Your task to perform on an android device: open device folders in google photos Image 0: 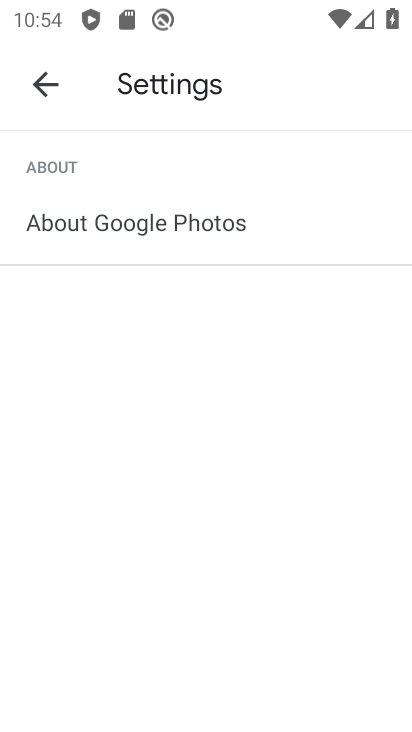
Step 0: press home button
Your task to perform on an android device: open device folders in google photos Image 1: 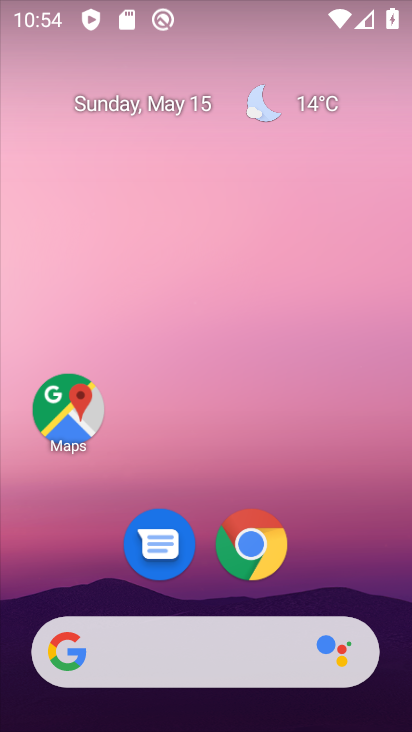
Step 1: drag from (106, 611) to (247, 59)
Your task to perform on an android device: open device folders in google photos Image 2: 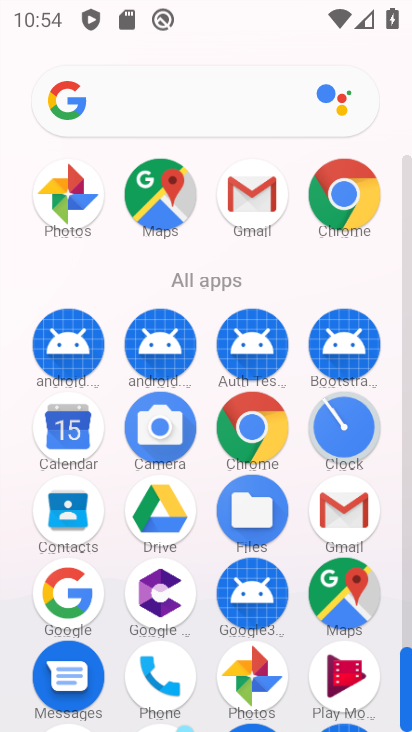
Step 2: drag from (146, 656) to (226, 425)
Your task to perform on an android device: open device folders in google photos Image 3: 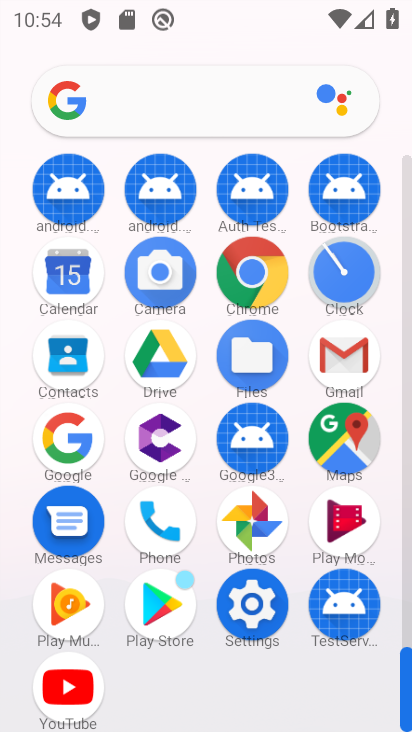
Step 3: click (236, 513)
Your task to perform on an android device: open device folders in google photos Image 4: 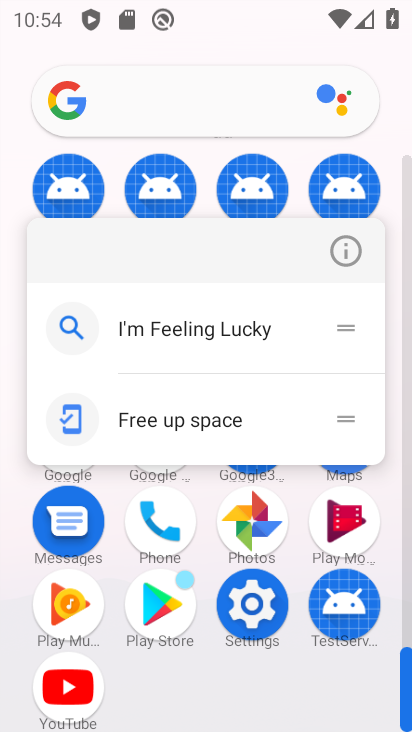
Step 4: click (243, 516)
Your task to perform on an android device: open device folders in google photos Image 5: 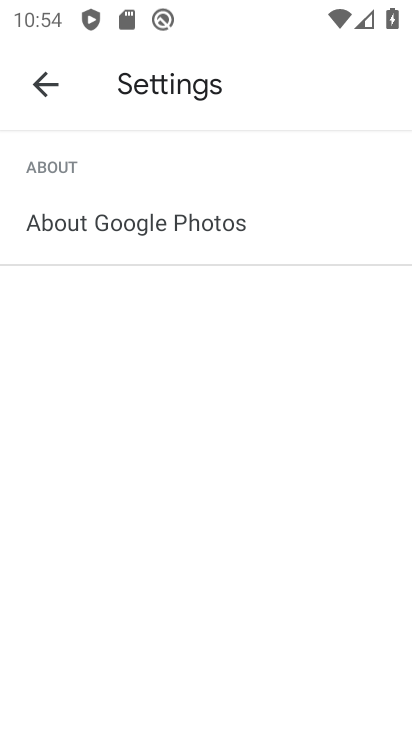
Step 5: click (76, 108)
Your task to perform on an android device: open device folders in google photos Image 6: 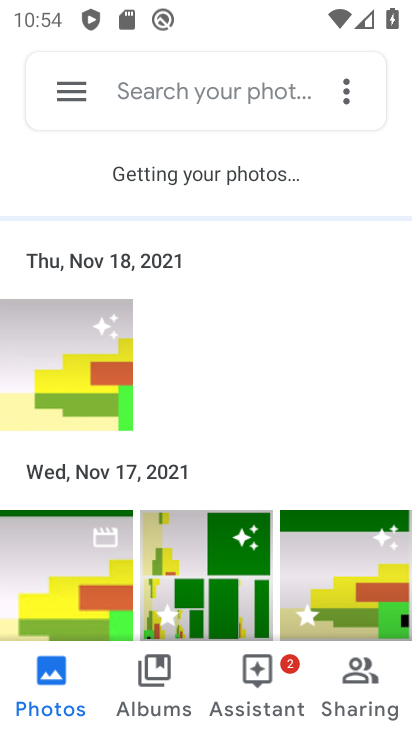
Step 6: click (76, 91)
Your task to perform on an android device: open device folders in google photos Image 7: 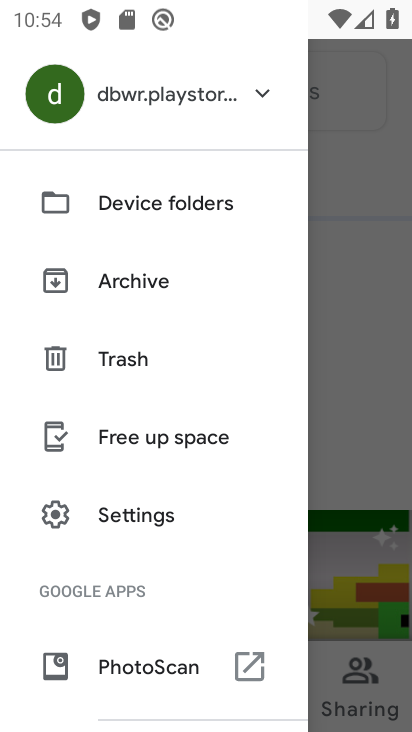
Step 7: click (159, 219)
Your task to perform on an android device: open device folders in google photos Image 8: 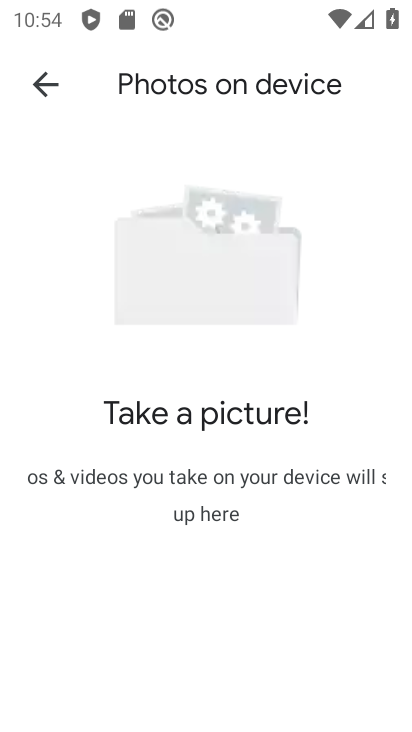
Step 8: task complete